Your task to perform on an android device: Go to Wikipedia Image 0: 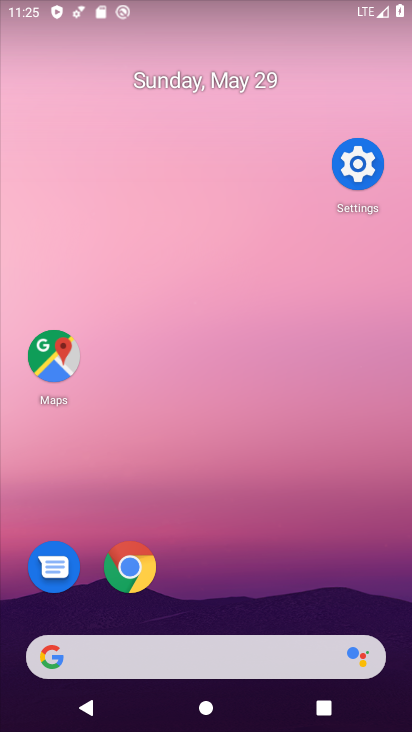
Step 0: drag from (281, 510) to (259, 140)
Your task to perform on an android device: Go to Wikipedia Image 1: 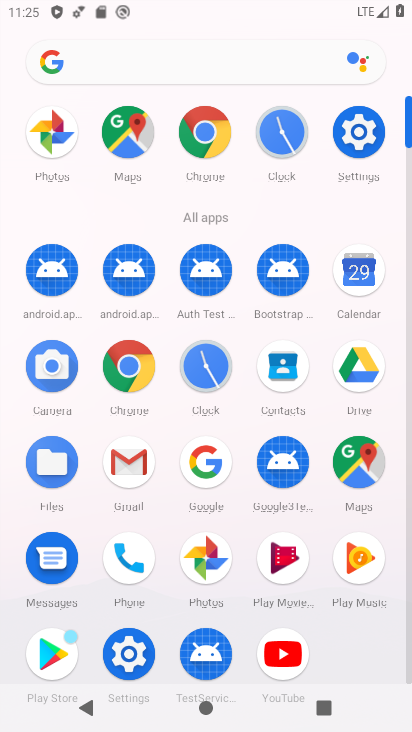
Step 1: click (130, 372)
Your task to perform on an android device: Go to Wikipedia Image 2: 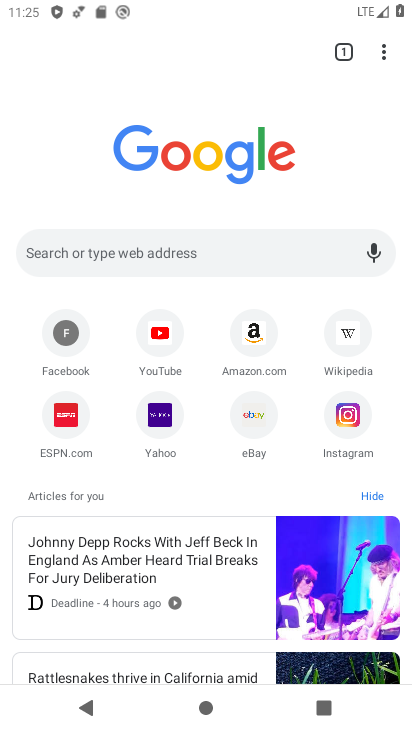
Step 2: click (353, 333)
Your task to perform on an android device: Go to Wikipedia Image 3: 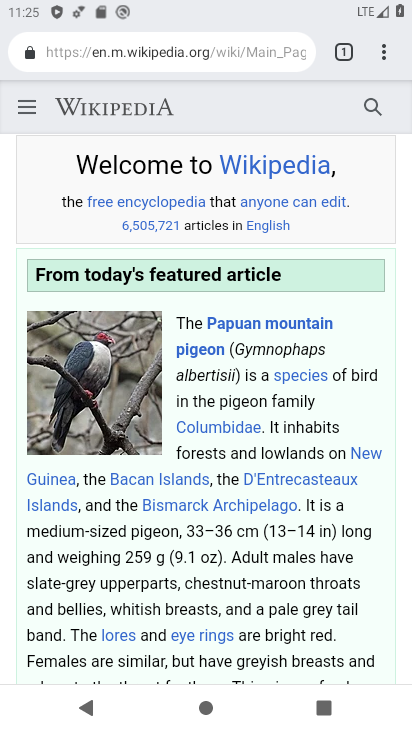
Step 3: task complete